Your task to perform on an android device: Go to Android settings Image 0: 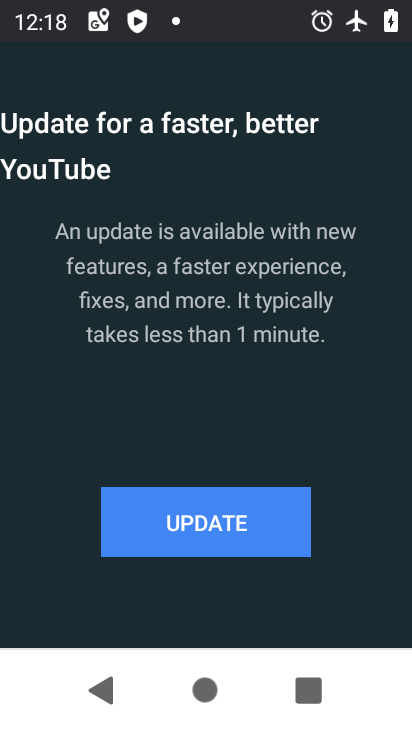
Step 0: press home button
Your task to perform on an android device: Go to Android settings Image 1: 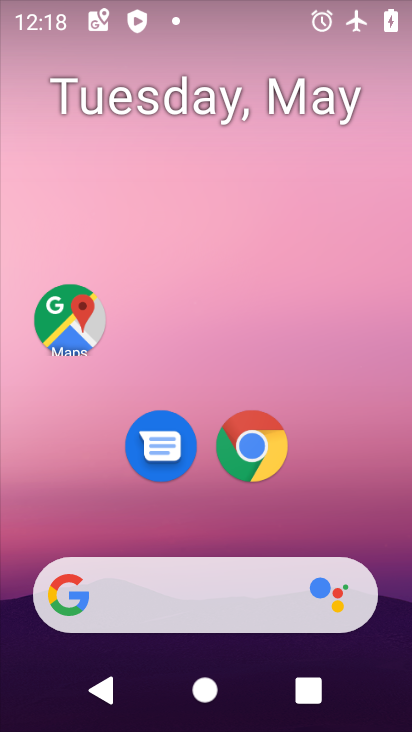
Step 1: drag from (329, 482) to (348, 177)
Your task to perform on an android device: Go to Android settings Image 2: 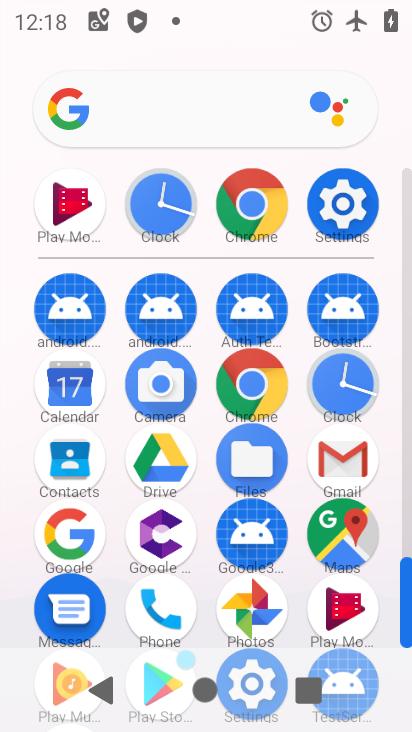
Step 2: click (337, 202)
Your task to perform on an android device: Go to Android settings Image 3: 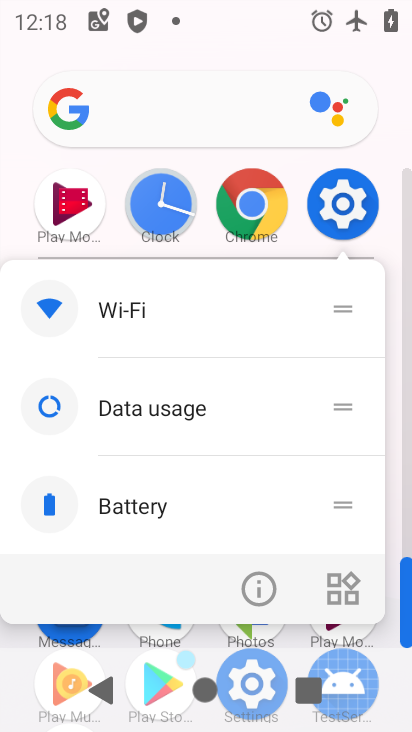
Step 3: click (345, 198)
Your task to perform on an android device: Go to Android settings Image 4: 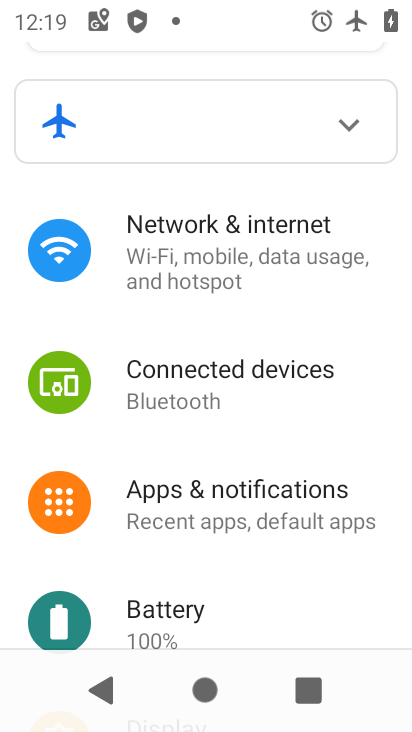
Step 4: task complete